Your task to perform on an android device: Open privacy settings Image 0: 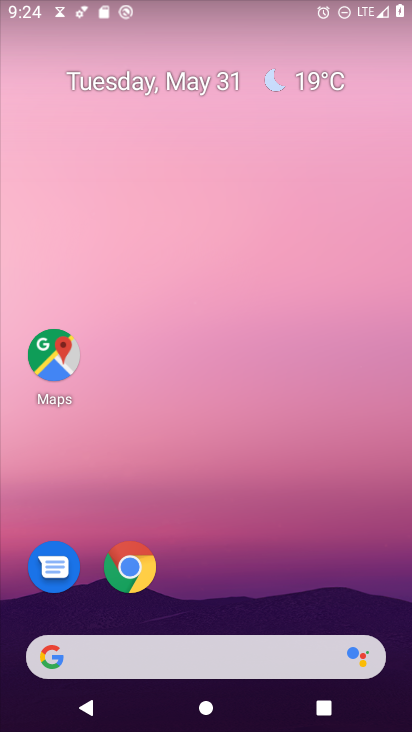
Step 0: drag from (195, 637) to (212, 189)
Your task to perform on an android device: Open privacy settings Image 1: 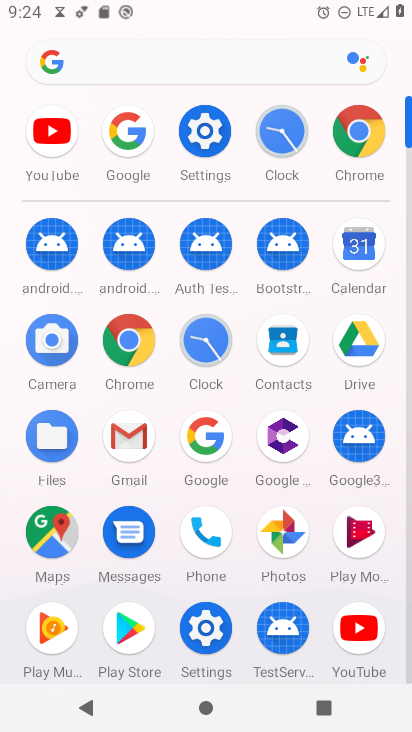
Step 1: click (214, 129)
Your task to perform on an android device: Open privacy settings Image 2: 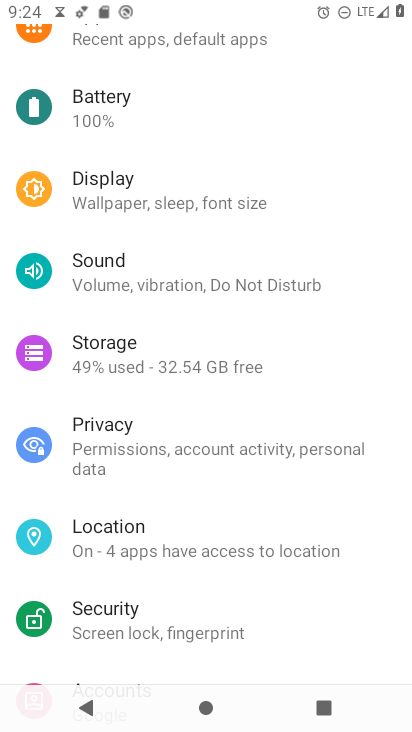
Step 2: click (102, 427)
Your task to perform on an android device: Open privacy settings Image 3: 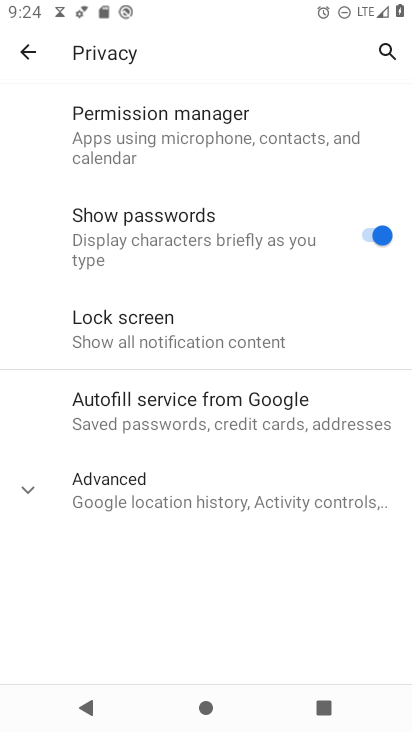
Step 3: click (139, 476)
Your task to perform on an android device: Open privacy settings Image 4: 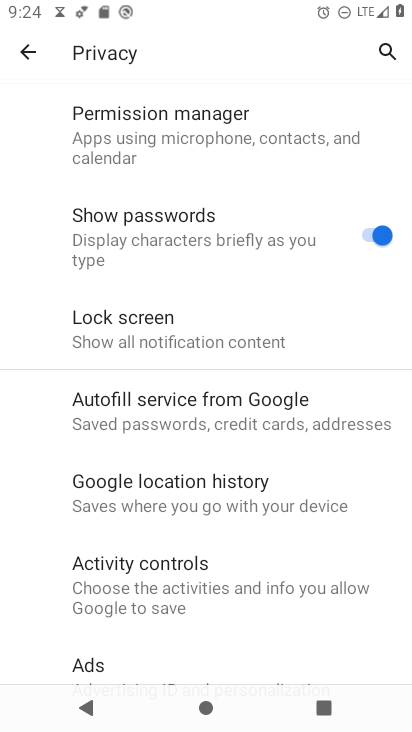
Step 4: task complete